Your task to perform on an android device: turn off priority inbox in the gmail app Image 0: 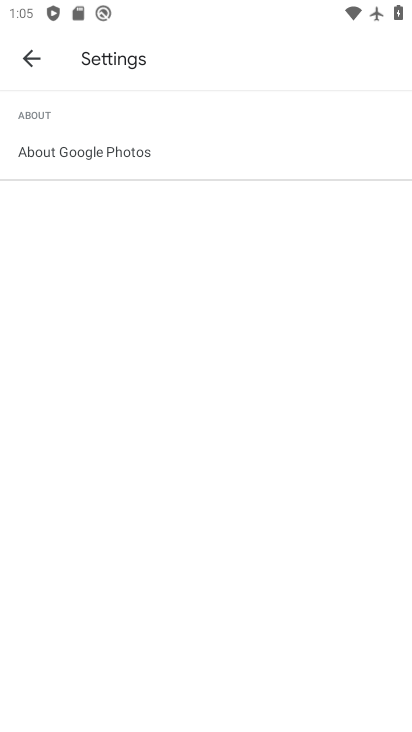
Step 0: press home button
Your task to perform on an android device: turn off priority inbox in the gmail app Image 1: 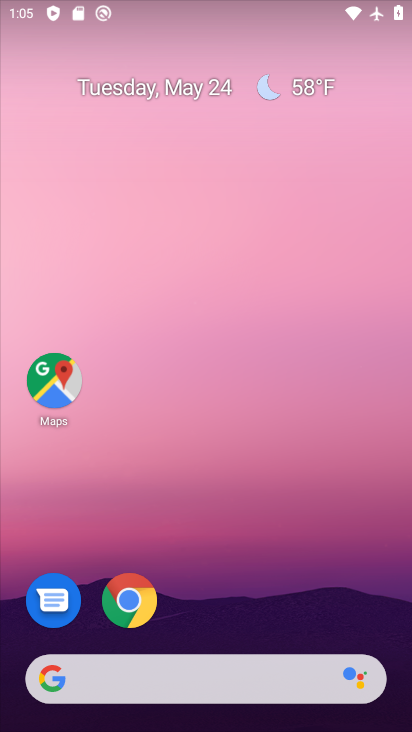
Step 1: drag from (272, 555) to (229, 6)
Your task to perform on an android device: turn off priority inbox in the gmail app Image 2: 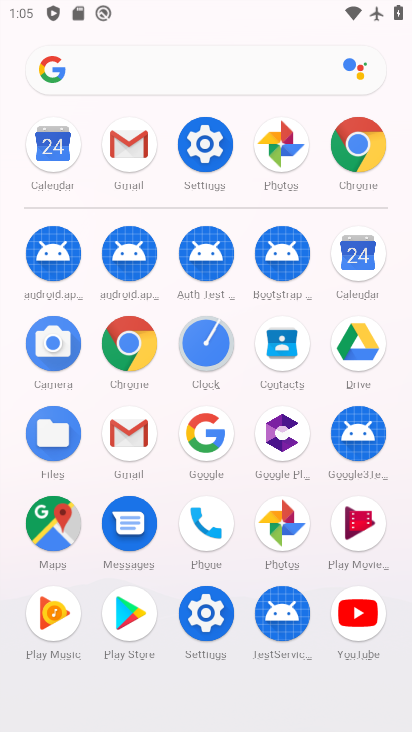
Step 2: click (133, 152)
Your task to perform on an android device: turn off priority inbox in the gmail app Image 3: 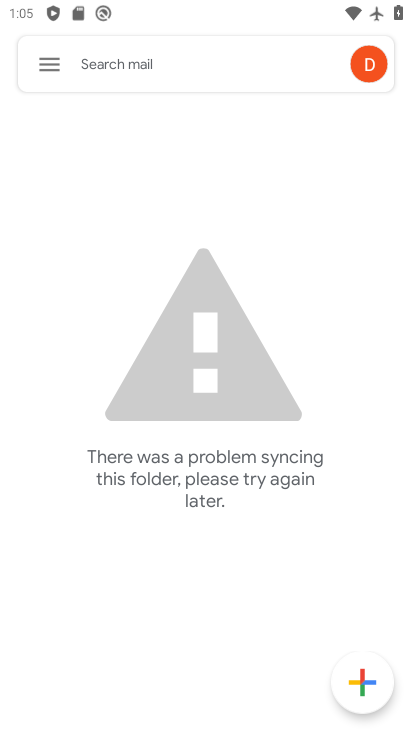
Step 3: click (47, 60)
Your task to perform on an android device: turn off priority inbox in the gmail app Image 4: 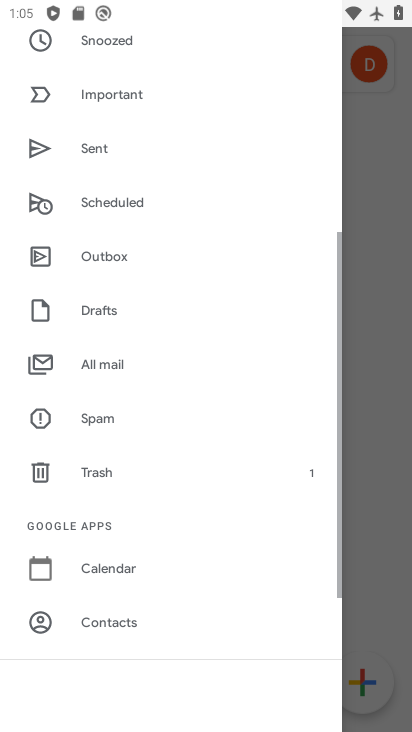
Step 4: drag from (191, 599) to (221, 237)
Your task to perform on an android device: turn off priority inbox in the gmail app Image 5: 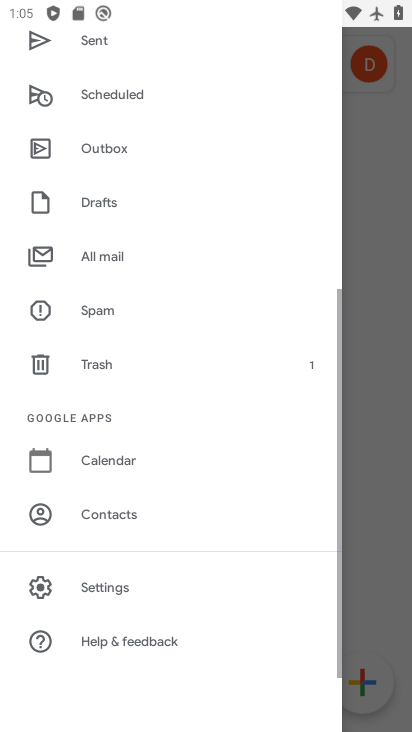
Step 5: click (116, 581)
Your task to perform on an android device: turn off priority inbox in the gmail app Image 6: 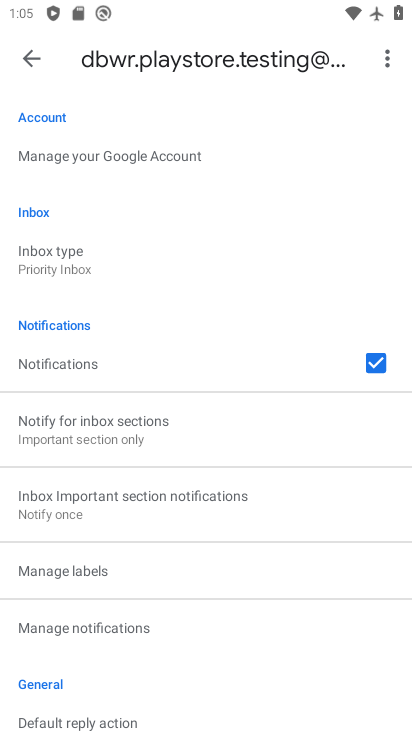
Step 6: click (140, 271)
Your task to perform on an android device: turn off priority inbox in the gmail app Image 7: 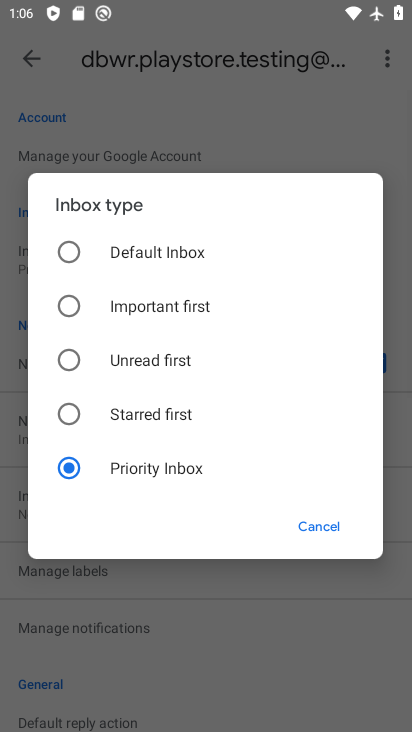
Step 7: click (171, 260)
Your task to perform on an android device: turn off priority inbox in the gmail app Image 8: 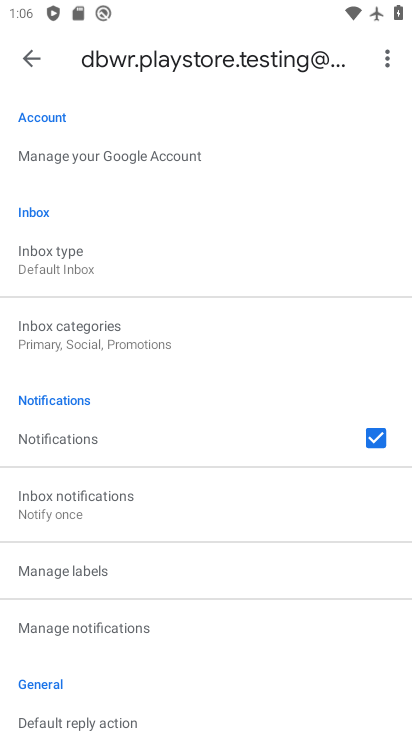
Step 8: task complete